Your task to perform on an android device: turn off notifications settings in the gmail app Image 0: 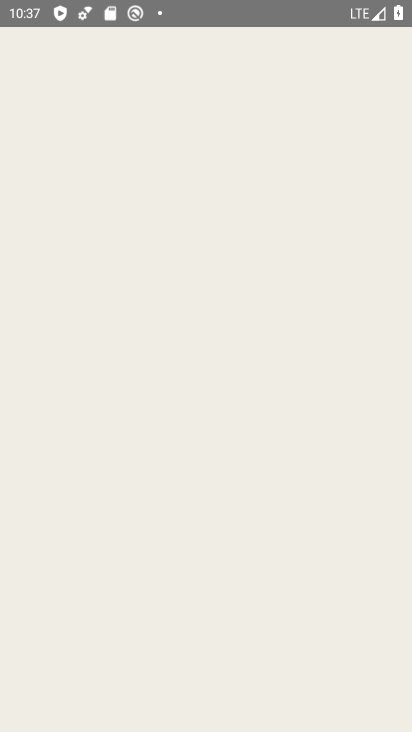
Step 0: drag from (351, 390) to (339, 188)
Your task to perform on an android device: turn off notifications settings in the gmail app Image 1: 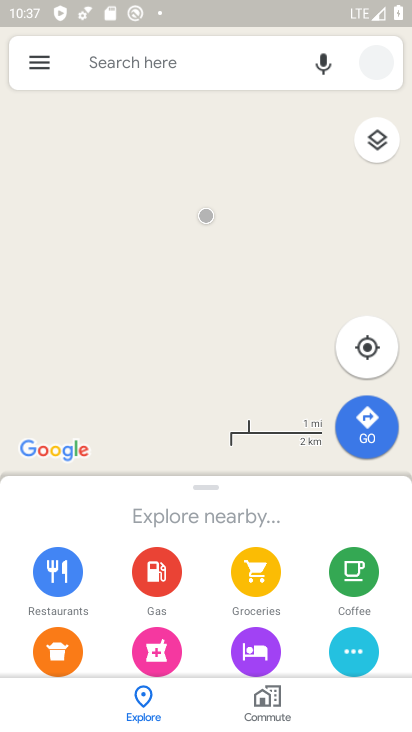
Step 1: press home button
Your task to perform on an android device: turn off notifications settings in the gmail app Image 2: 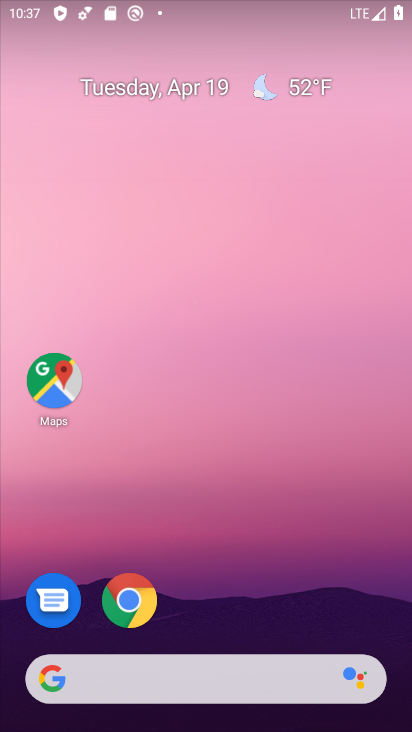
Step 2: drag from (300, 587) to (231, 224)
Your task to perform on an android device: turn off notifications settings in the gmail app Image 3: 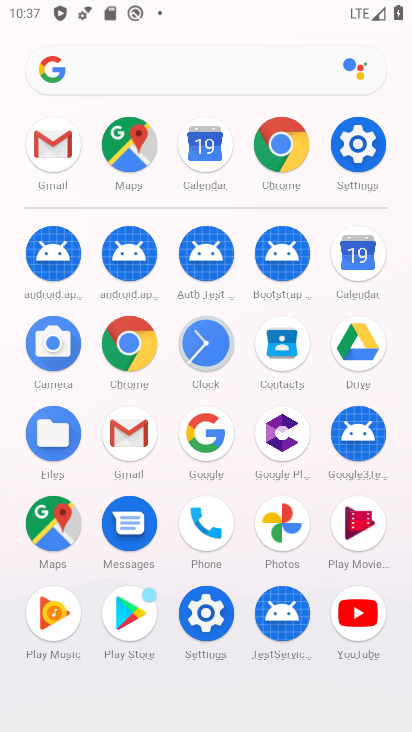
Step 3: click (136, 435)
Your task to perform on an android device: turn off notifications settings in the gmail app Image 4: 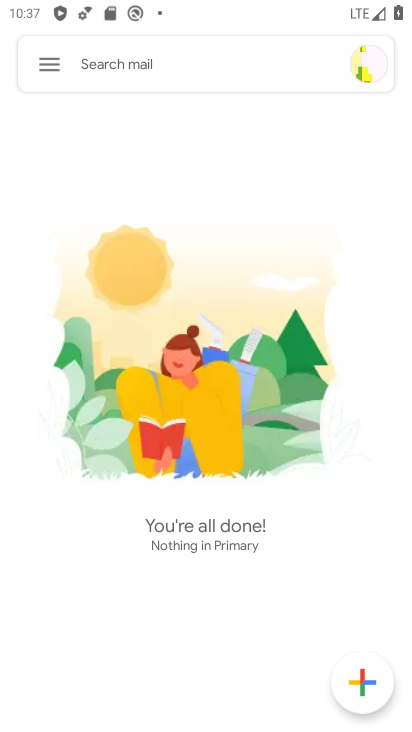
Step 4: click (43, 68)
Your task to perform on an android device: turn off notifications settings in the gmail app Image 5: 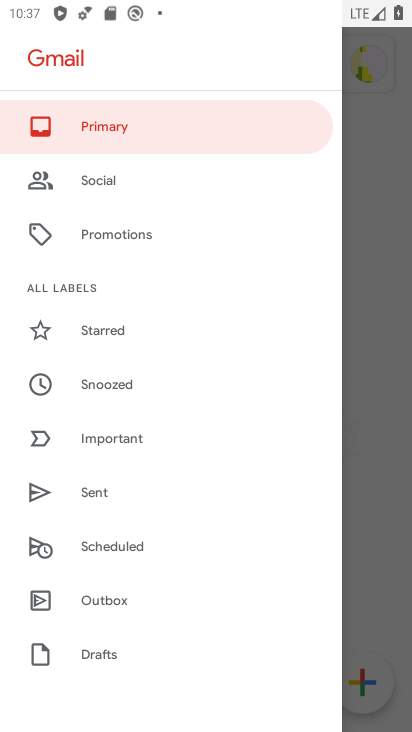
Step 5: drag from (145, 593) to (170, 253)
Your task to perform on an android device: turn off notifications settings in the gmail app Image 6: 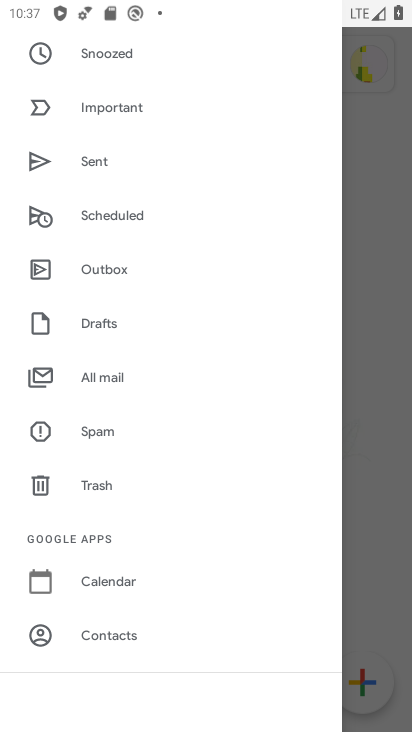
Step 6: drag from (145, 593) to (140, 335)
Your task to perform on an android device: turn off notifications settings in the gmail app Image 7: 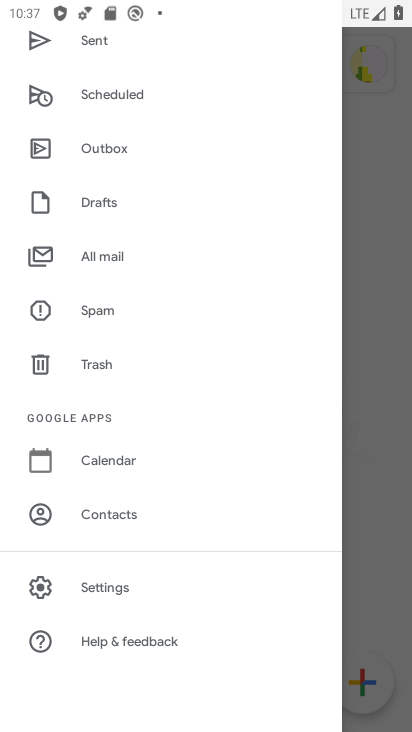
Step 7: click (174, 583)
Your task to perform on an android device: turn off notifications settings in the gmail app Image 8: 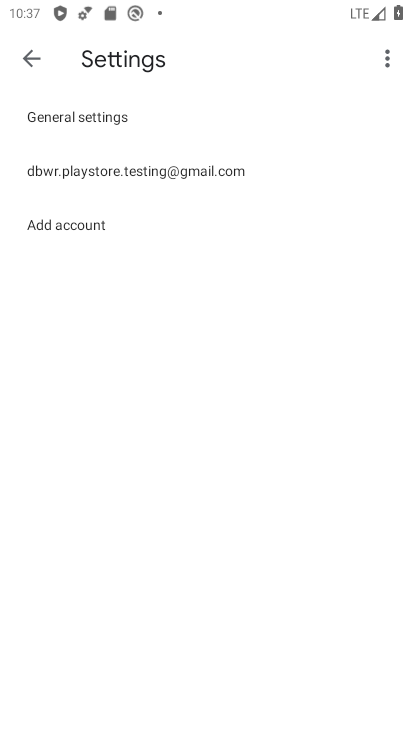
Step 8: click (195, 167)
Your task to perform on an android device: turn off notifications settings in the gmail app Image 9: 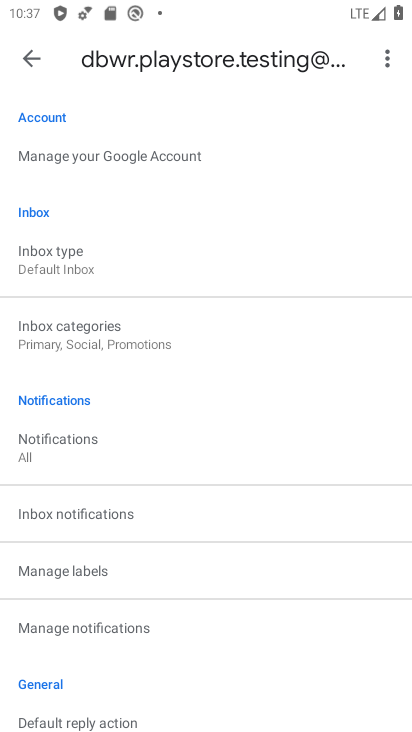
Step 9: click (94, 465)
Your task to perform on an android device: turn off notifications settings in the gmail app Image 10: 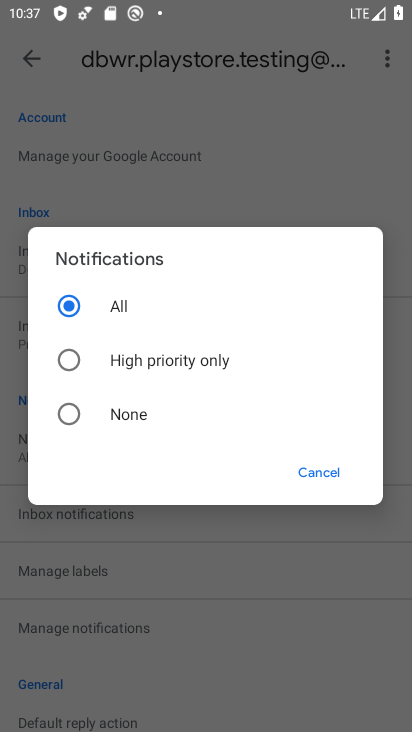
Step 10: click (116, 414)
Your task to perform on an android device: turn off notifications settings in the gmail app Image 11: 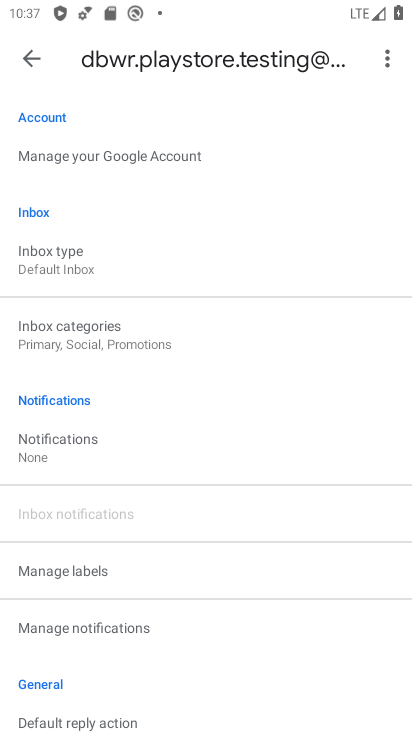
Step 11: task complete